Your task to perform on an android device: Go to Amazon Image 0: 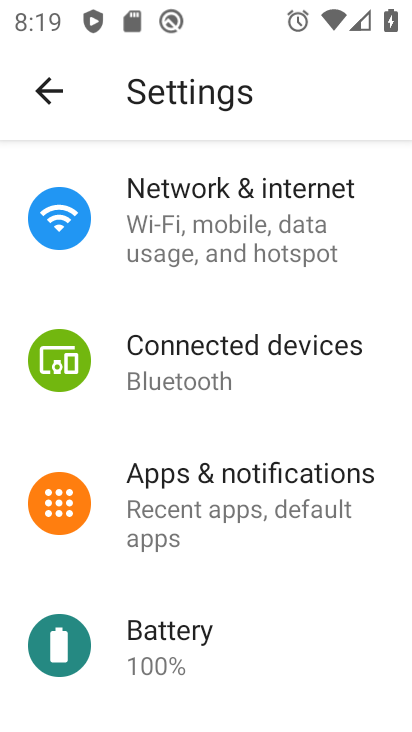
Step 0: press home button
Your task to perform on an android device: Go to Amazon Image 1: 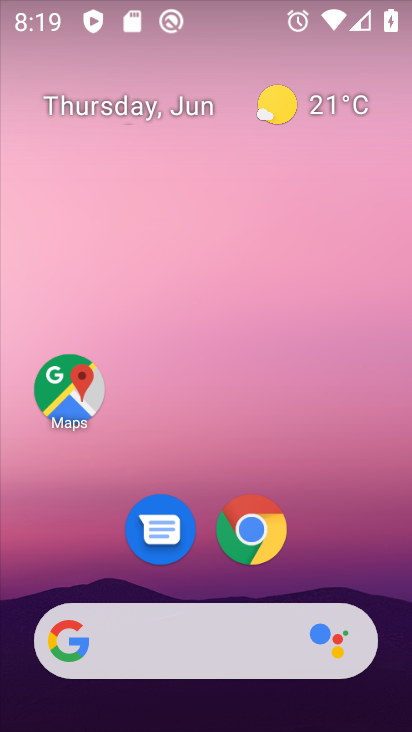
Step 1: drag from (392, 687) to (375, 93)
Your task to perform on an android device: Go to Amazon Image 2: 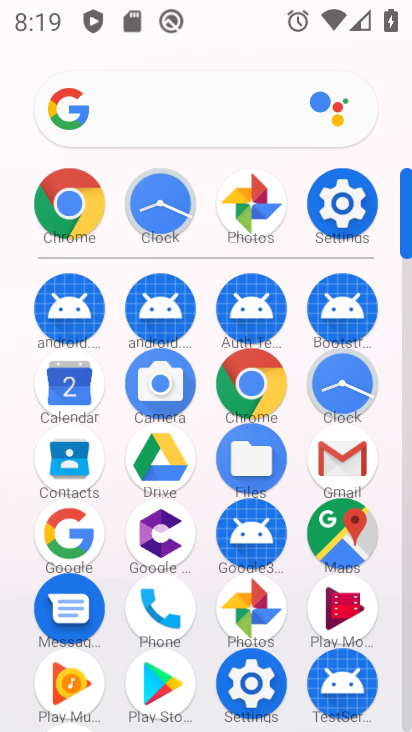
Step 2: click (243, 374)
Your task to perform on an android device: Go to Amazon Image 3: 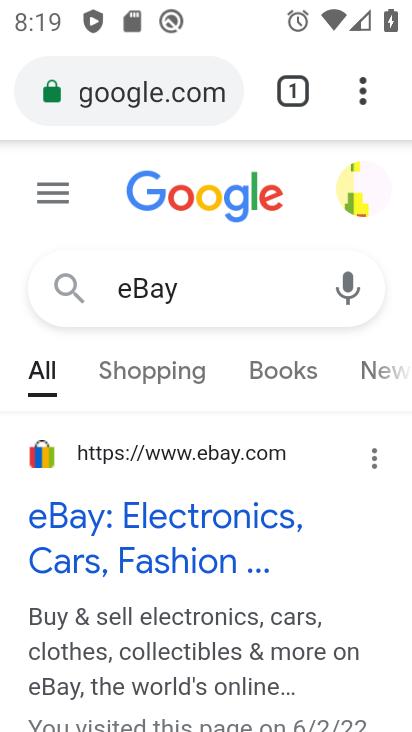
Step 3: click (226, 89)
Your task to perform on an android device: Go to Amazon Image 4: 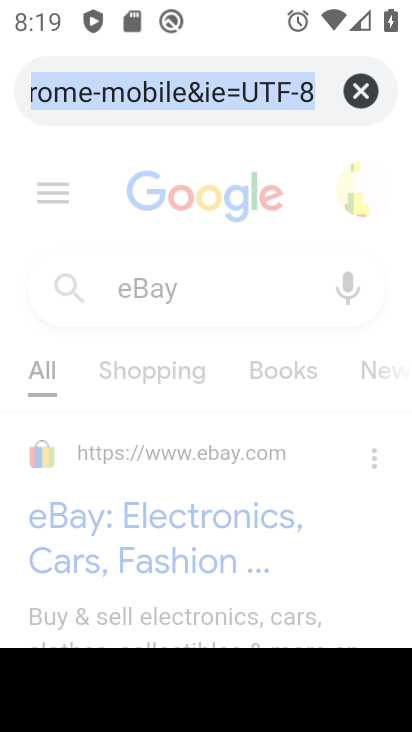
Step 4: click (358, 96)
Your task to perform on an android device: Go to Amazon Image 5: 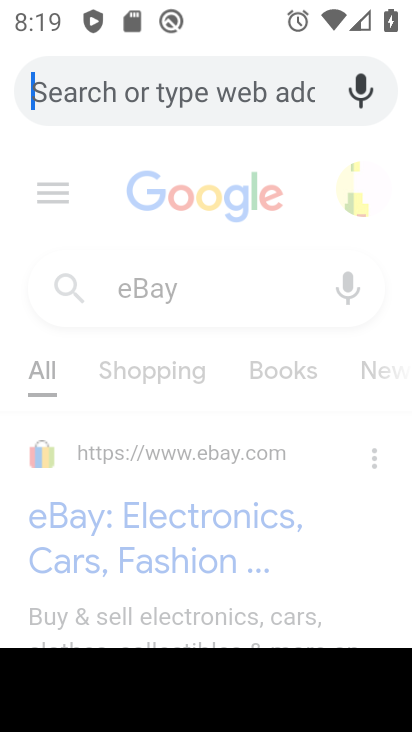
Step 5: type "Amazon"
Your task to perform on an android device: Go to Amazon Image 6: 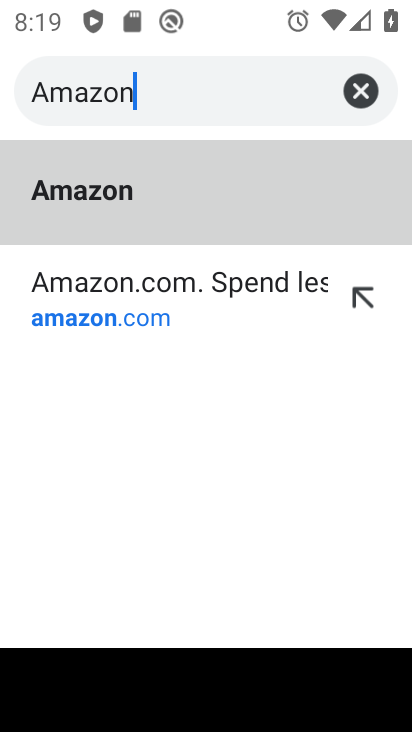
Step 6: click (98, 199)
Your task to perform on an android device: Go to Amazon Image 7: 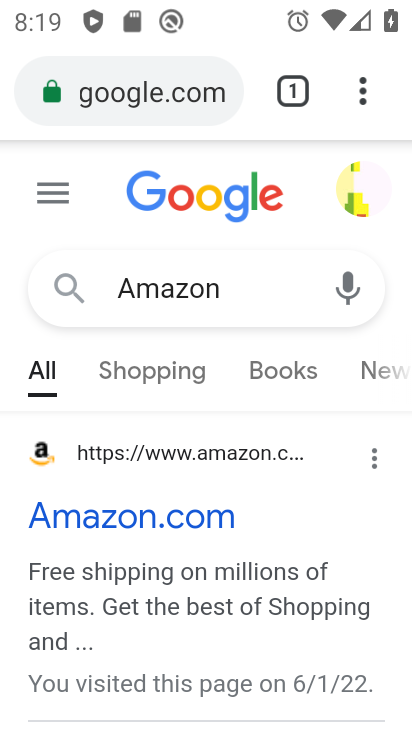
Step 7: task complete